Your task to perform on an android device: Open maps Image 0: 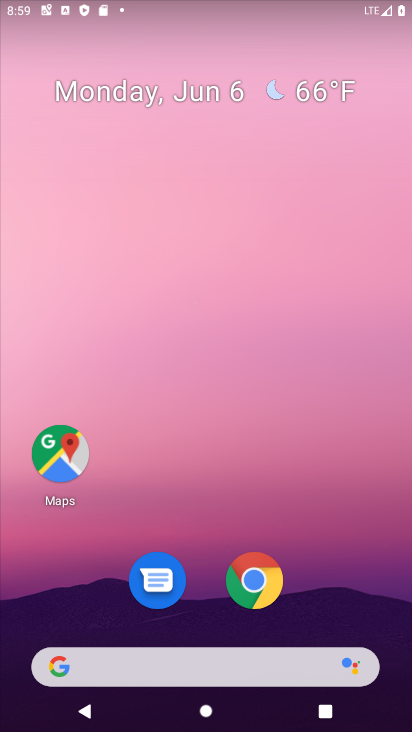
Step 0: drag from (377, 578) to (325, 74)
Your task to perform on an android device: Open maps Image 1: 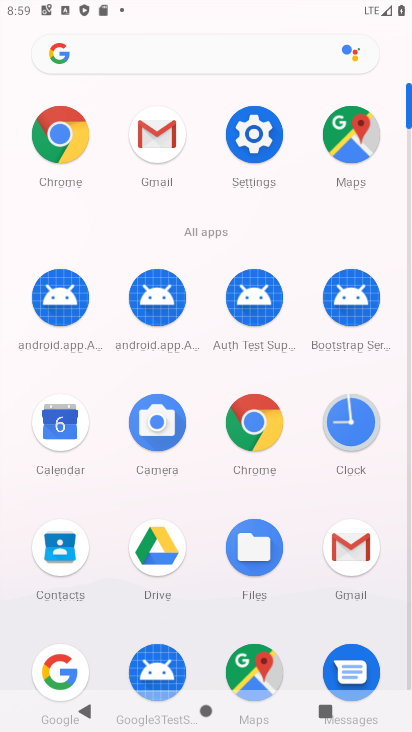
Step 1: click (347, 140)
Your task to perform on an android device: Open maps Image 2: 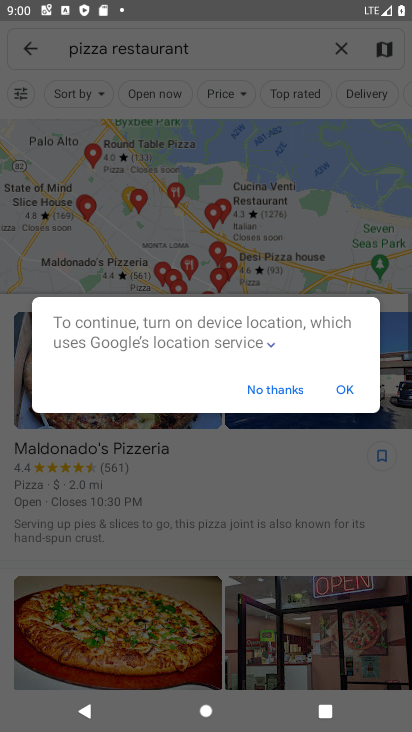
Step 2: task complete